Your task to perform on an android device: delete the emails in spam in the gmail app Image 0: 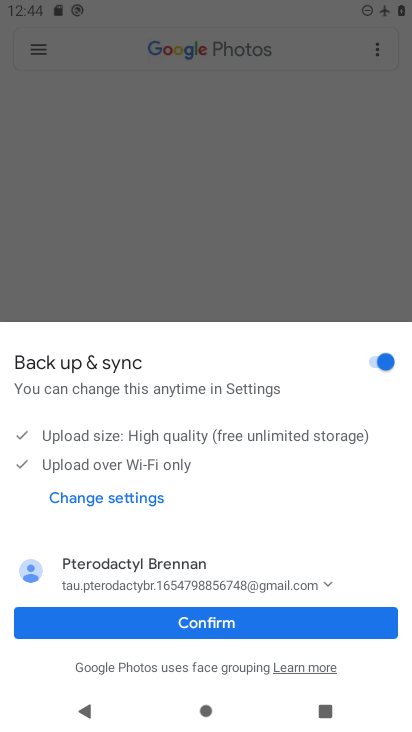
Step 0: press home button
Your task to perform on an android device: delete the emails in spam in the gmail app Image 1: 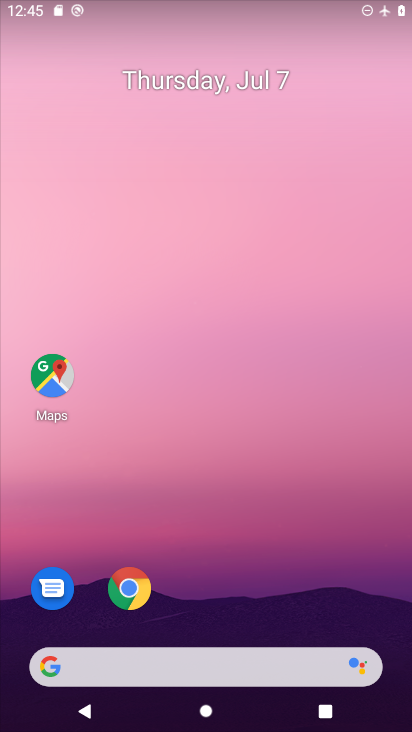
Step 1: drag from (305, 657) to (342, 21)
Your task to perform on an android device: delete the emails in spam in the gmail app Image 2: 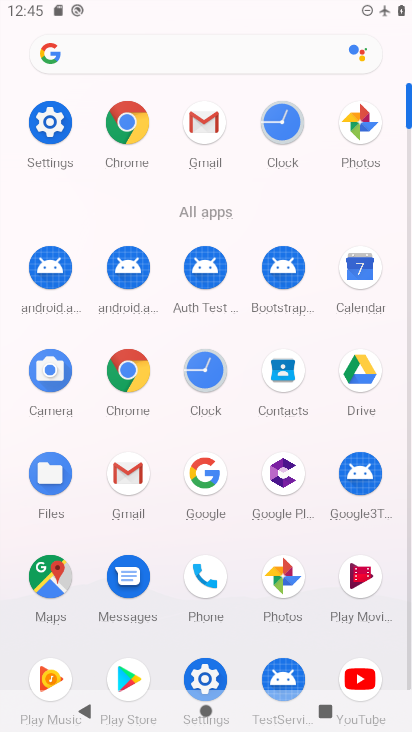
Step 2: click (114, 472)
Your task to perform on an android device: delete the emails in spam in the gmail app Image 3: 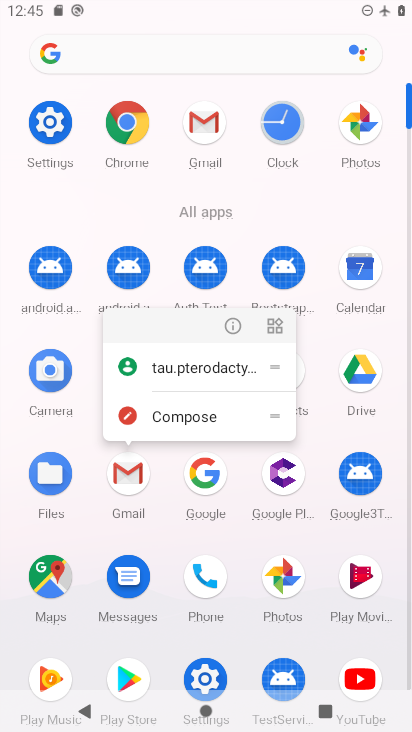
Step 3: click (123, 467)
Your task to perform on an android device: delete the emails in spam in the gmail app Image 4: 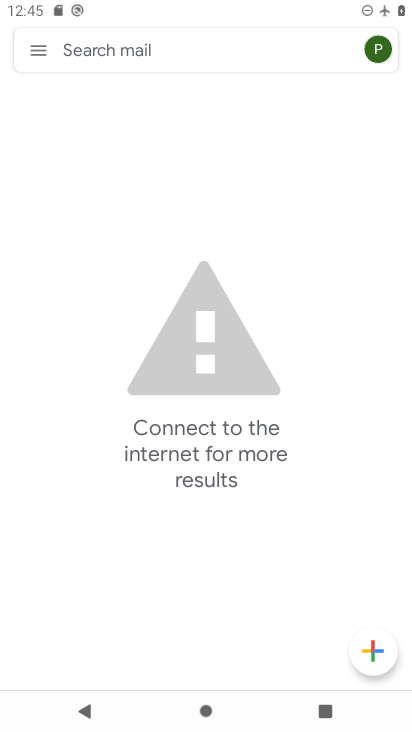
Step 4: press back button
Your task to perform on an android device: delete the emails in spam in the gmail app Image 5: 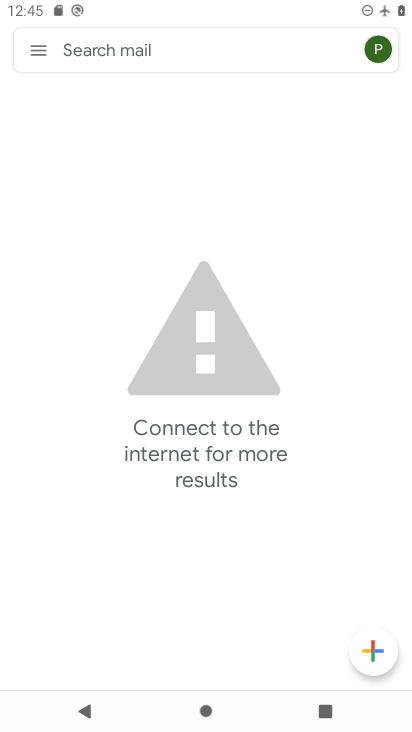
Step 5: click (46, 48)
Your task to perform on an android device: delete the emails in spam in the gmail app Image 6: 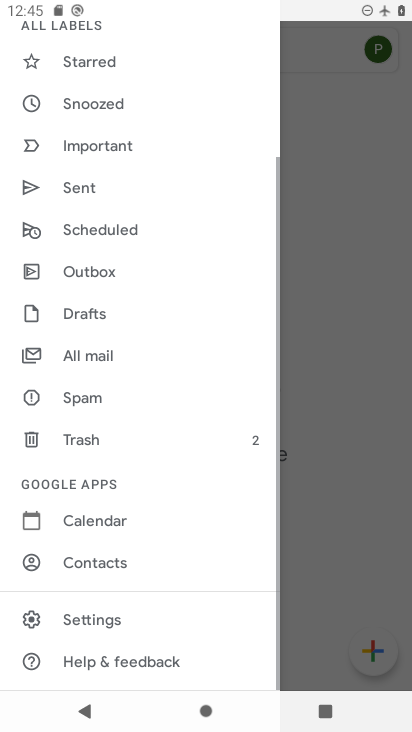
Step 6: drag from (165, 248) to (142, 582)
Your task to perform on an android device: delete the emails in spam in the gmail app Image 7: 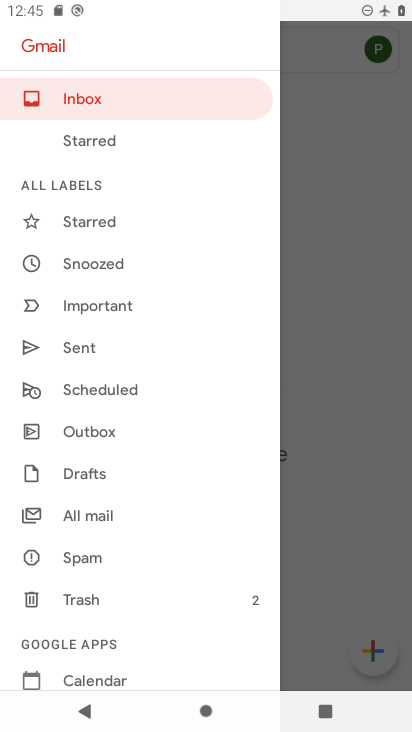
Step 7: click (90, 554)
Your task to perform on an android device: delete the emails in spam in the gmail app Image 8: 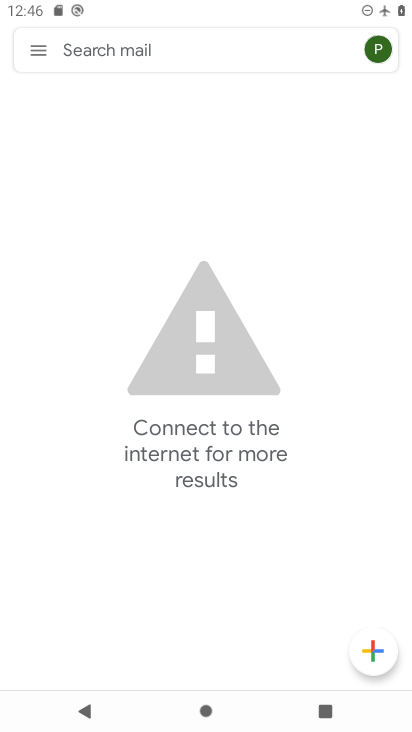
Step 8: task complete